Your task to perform on an android device: Search for pizza restaurants on Maps Image 0: 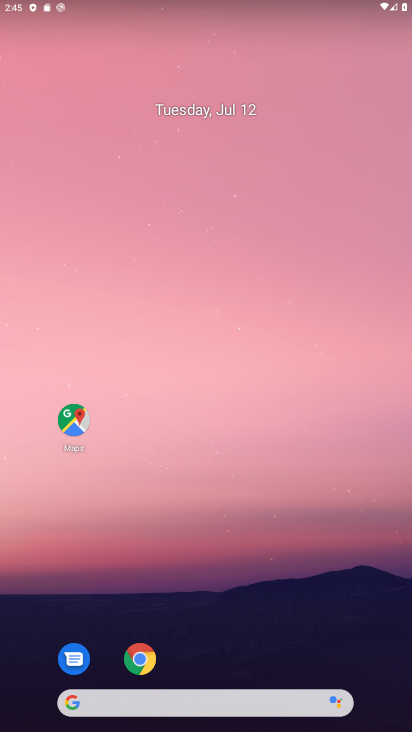
Step 0: drag from (258, 653) to (187, 233)
Your task to perform on an android device: Search for pizza restaurants on Maps Image 1: 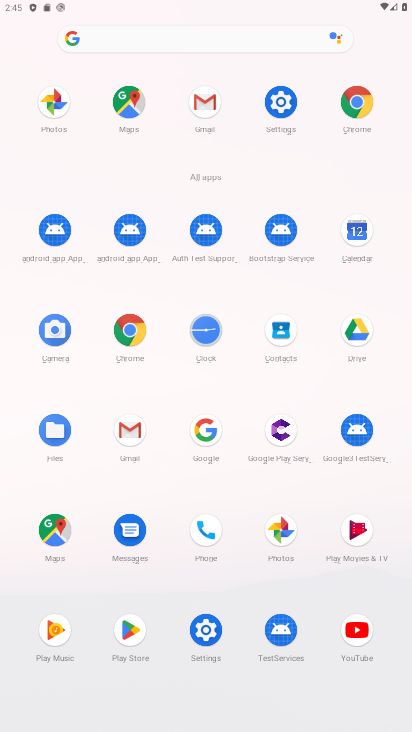
Step 1: click (59, 518)
Your task to perform on an android device: Search for pizza restaurants on Maps Image 2: 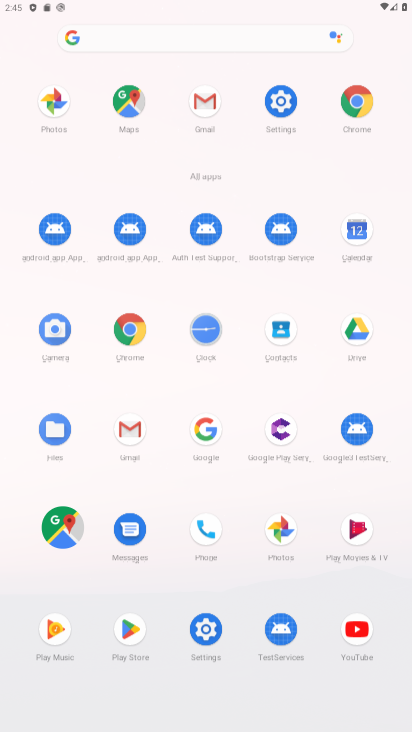
Step 2: click (61, 512)
Your task to perform on an android device: Search for pizza restaurants on Maps Image 3: 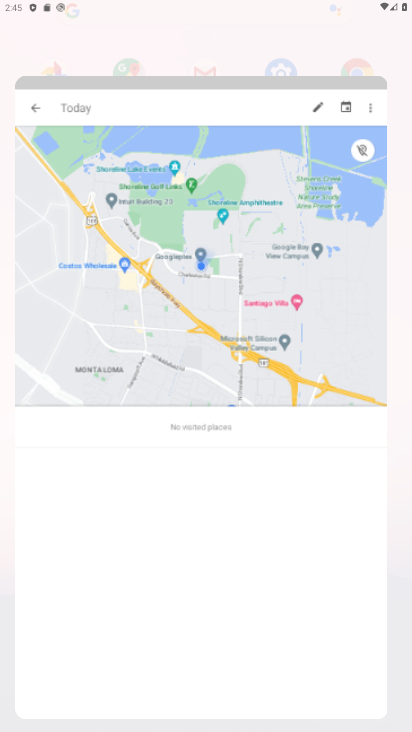
Step 3: click (61, 512)
Your task to perform on an android device: Search for pizza restaurants on Maps Image 4: 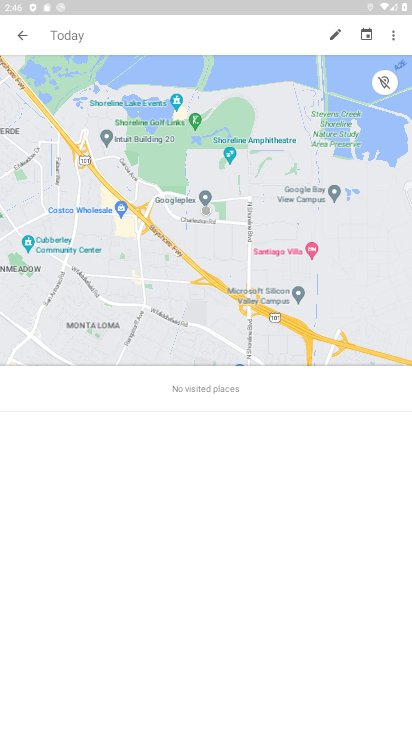
Step 4: click (399, 36)
Your task to perform on an android device: Search for pizza restaurants on Maps Image 5: 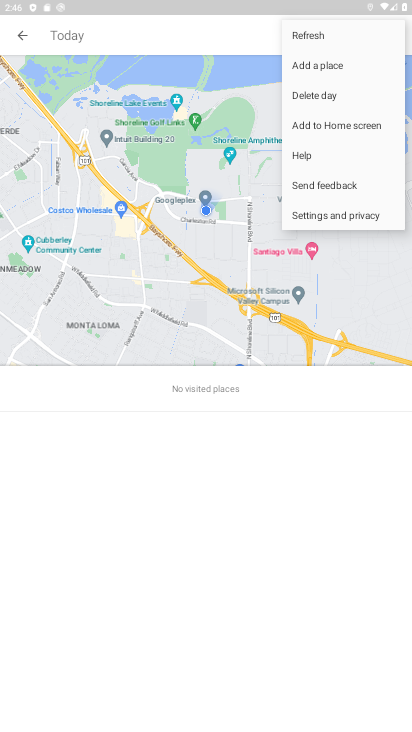
Step 5: click (97, 25)
Your task to perform on an android device: Search for pizza restaurants on Maps Image 6: 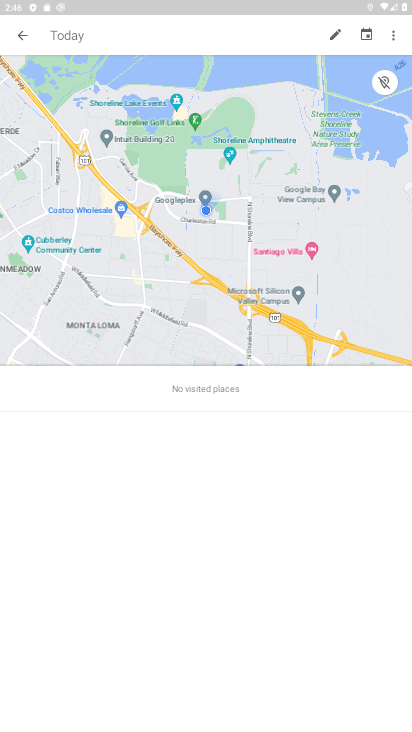
Step 6: click (97, 25)
Your task to perform on an android device: Search for pizza restaurants on Maps Image 7: 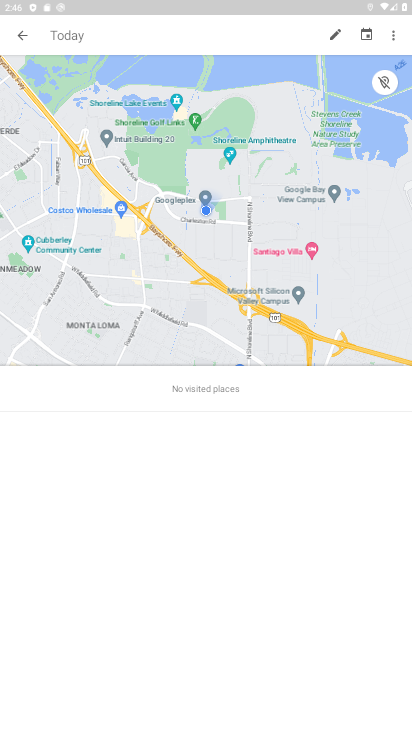
Step 7: click (89, 31)
Your task to perform on an android device: Search for pizza restaurants on Maps Image 8: 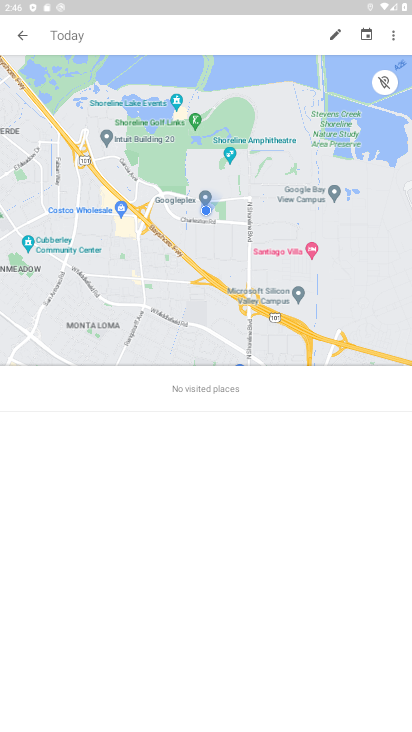
Step 8: click (93, 33)
Your task to perform on an android device: Search for pizza restaurants on Maps Image 9: 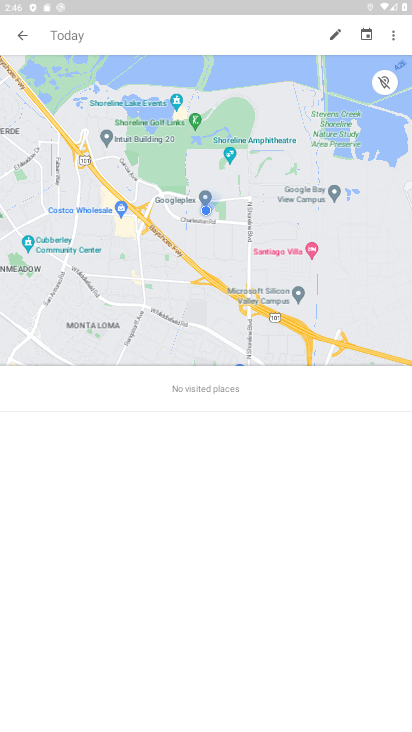
Step 9: click (343, 35)
Your task to perform on an android device: Search for pizza restaurants on Maps Image 10: 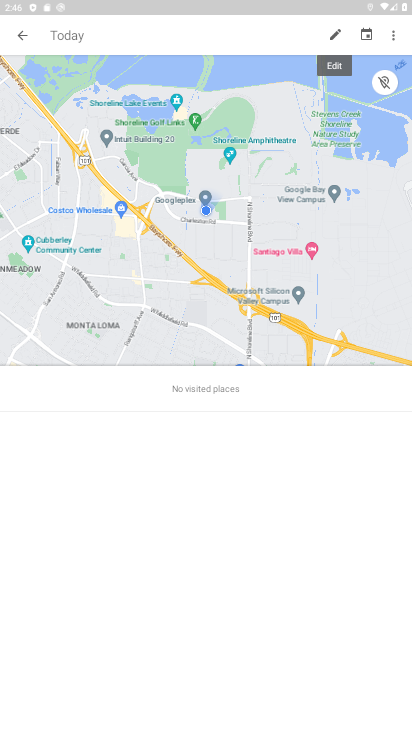
Step 10: click (91, 26)
Your task to perform on an android device: Search for pizza restaurants on Maps Image 11: 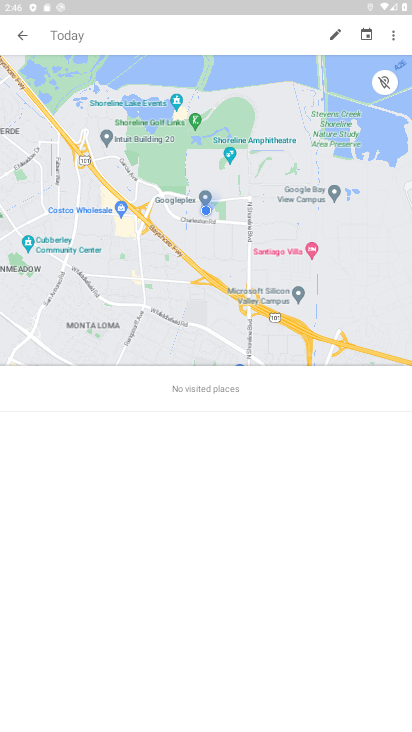
Step 11: click (95, 22)
Your task to perform on an android device: Search for pizza restaurants on Maps Image 12: 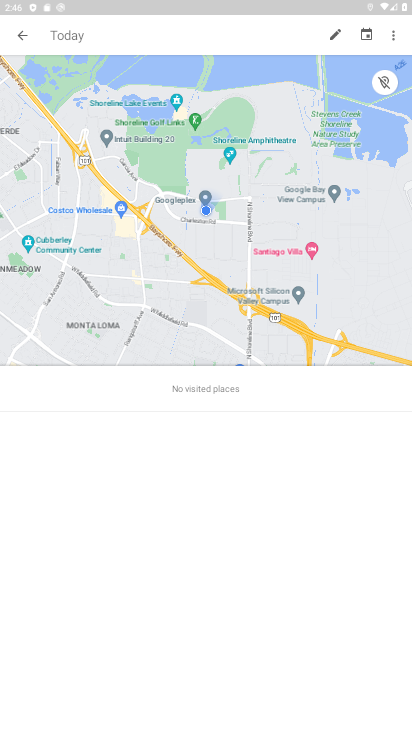
Step 12: click (96, 21)
Your task to perform on an android device: Search for pizza restaurants on Maps Image 13: 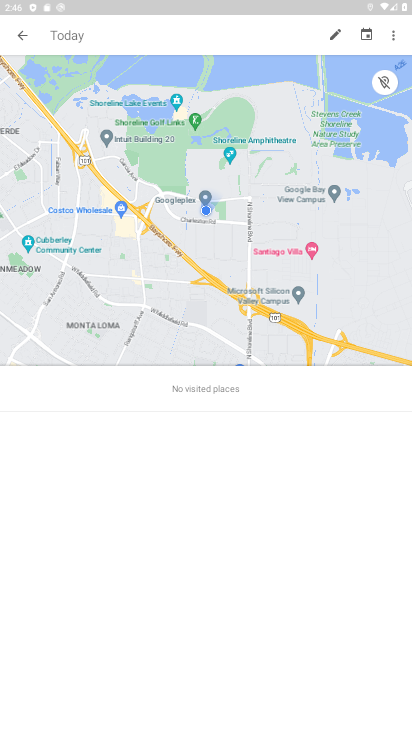
Step 13: click (96, 21)
Your task to perform on an android device: Search for pizza restaurants on Maps Image 14: 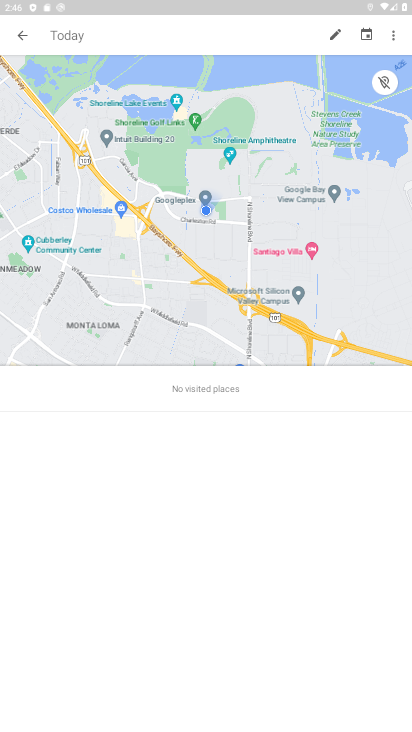
Step 14: click (97, 20)
Your task to perform on an android device: Search for pizza restaurants on Maps Image 15: 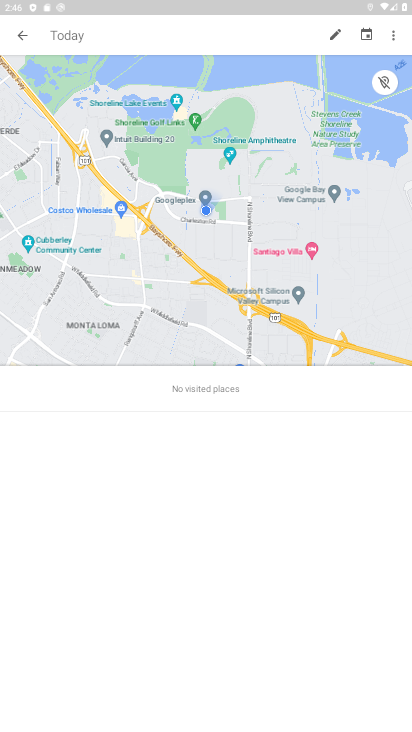
Step 15: click (97, 20)
Your task to perform on an android device: Search for pizza restaurants on Maps Image 16: 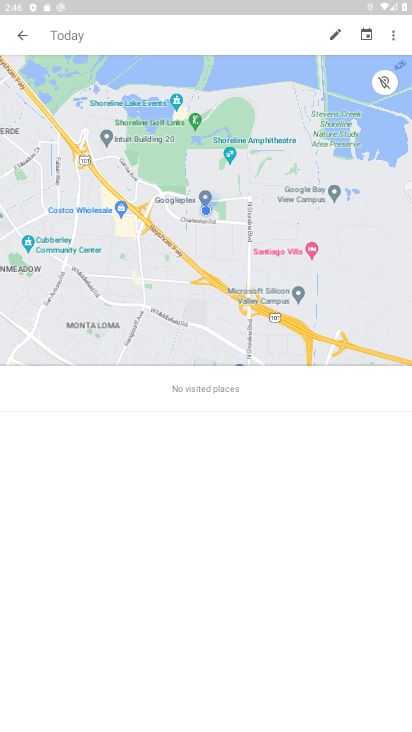
Step 16: click (97, 20)
Your task to perform on an android device: Search for pizza restaurants on Maps Image 17: 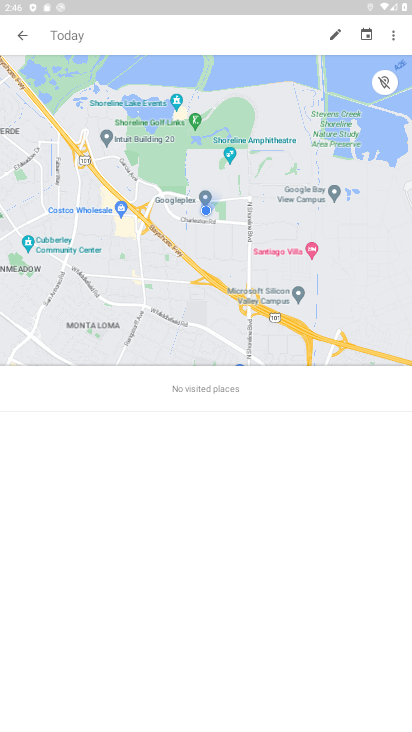
Step 17: click (98, 21)
Your task to perform on an android device: Search for pizza restaurants on Maps Image 18: 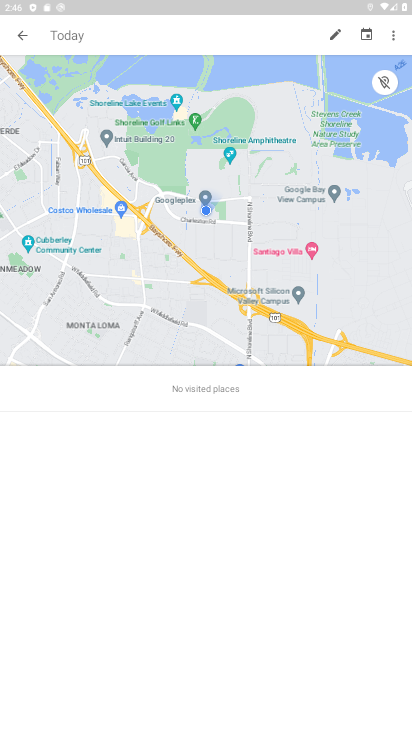
Step 18: click (87, 32)
Your task to perform on an android device: Search for pizza restaurants on Maps Image 19: 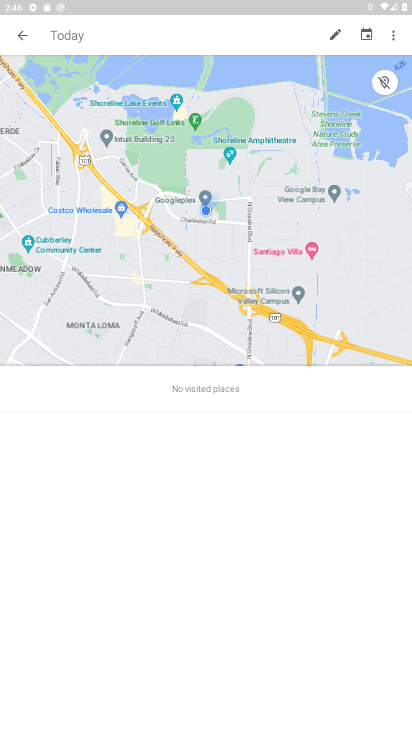
Step 19: click (84, 37)
Your task to perform on an android device: Search for pizza restaurants on Maps Image 20: 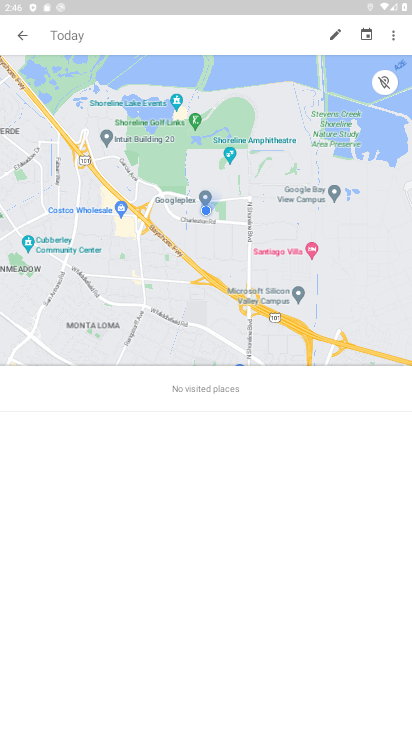
Step 20: click (89, 44)
Your task to perform on an android device: Search for pizza restaurants on Maps Image 21: 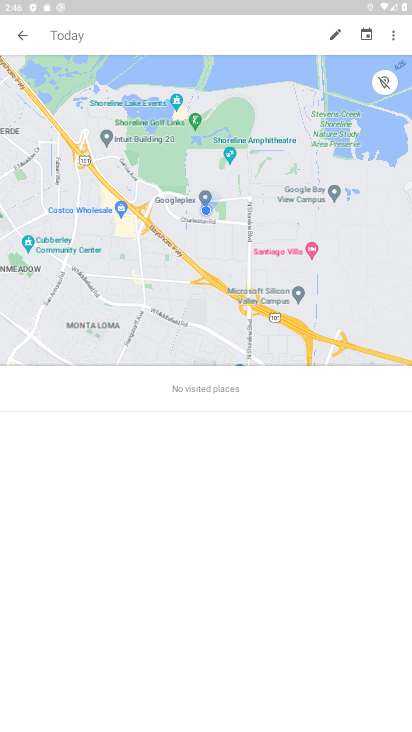
Step 21: click (88, 43)
Your task to perform on an android device: Search for pizza restaurants on Maps Image 22: 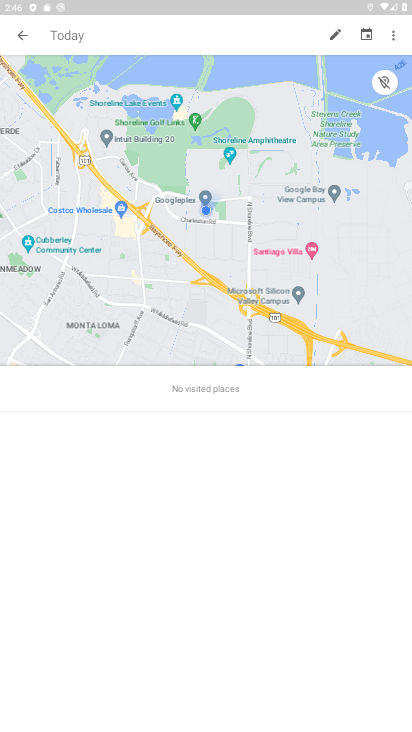
Step 22: click (333, 25)
Your task to perform on an android device: Search for pizza restaurants on Maps Image 23: 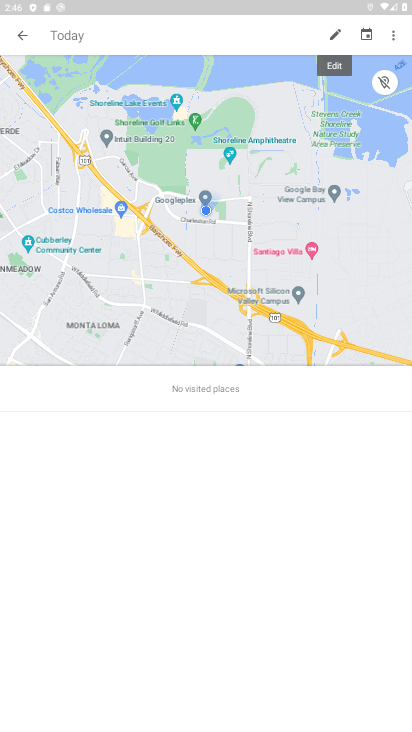
Step 23: click (20, 28)
Your task to perform on an android device: Search for pizza restaurants on Maps Image 24: 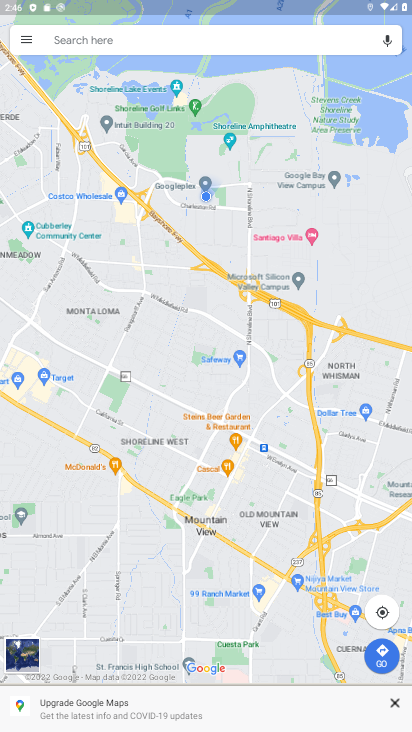
Step 24: click (66, 32)
Your task to perform on an android device: Search for pizza restaurants on Maps Image 25: 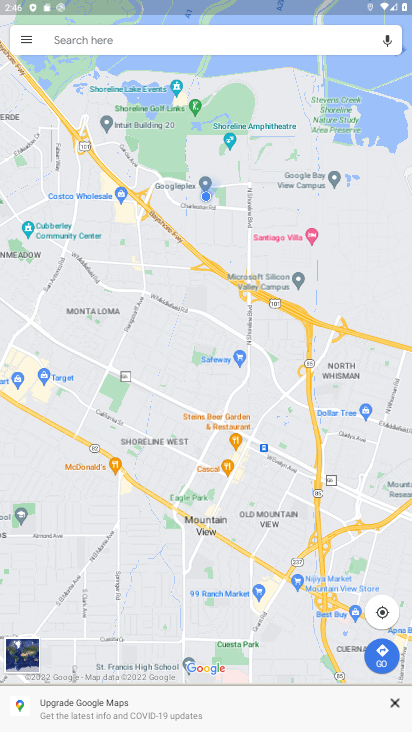
Step 25: click (66, 29)
Your task to perform on an android device: Search for pizza restaurants on Maps Image 26: 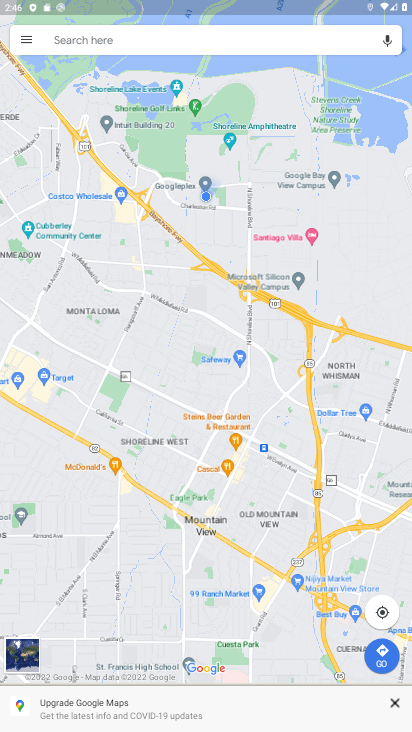
Step 26: click (66, 29)
Your task to perform on an android device: Search for pizza restaurants on Maps Image 27: 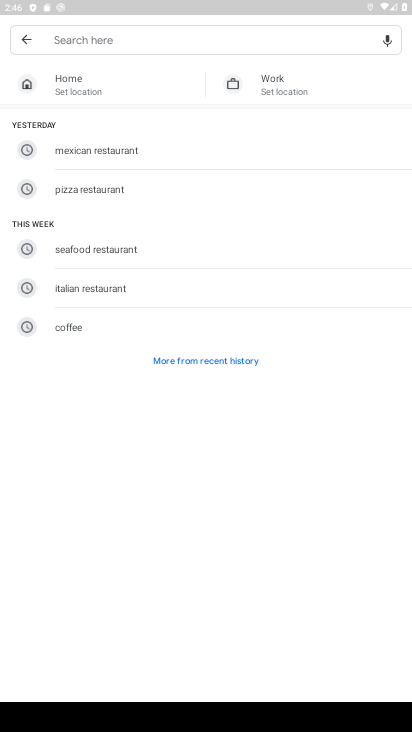
Step 27: click (139, 28)
Your task to perform on an android device: Search for pizza restaurants on Maps Image 28: 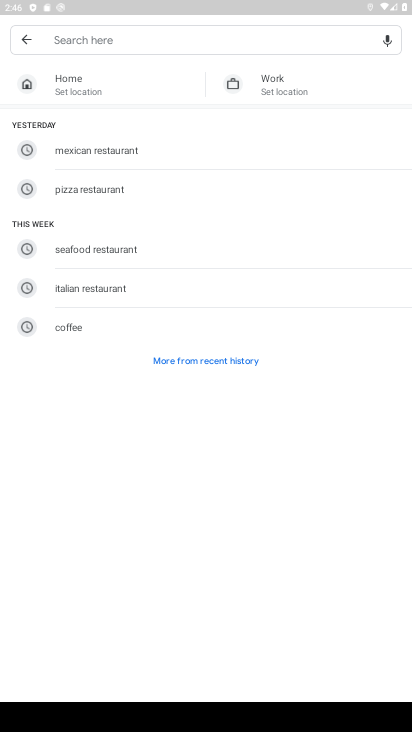
Step 28: type "pizza restsaurant"
Your task to perform on an android device: Search for pizza restaurants on Maps Image 29: 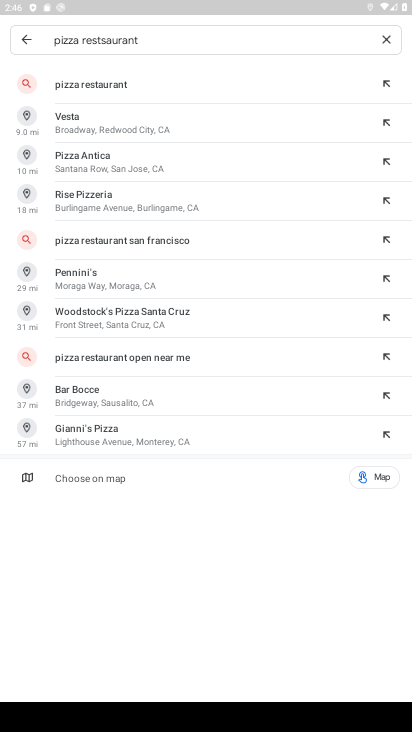
Step 29: click (81, 79)
Your task to perform on an android device: Search for pizza restaurants on Maps Image 30: 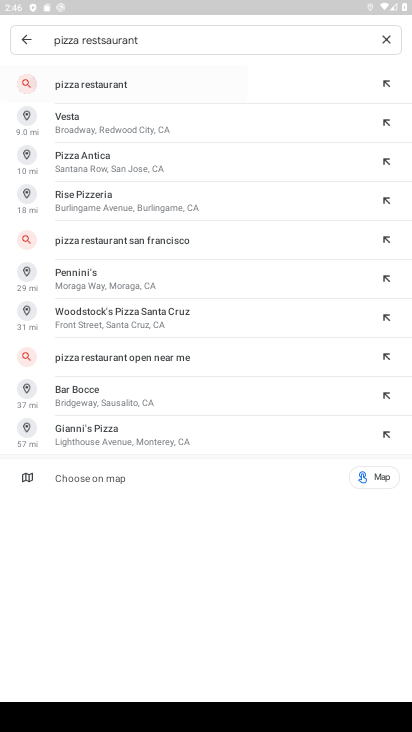
Step 30: click (81, 79)
Your task to perform on an android device: Search for pizza restaurants on Maps Image 31: 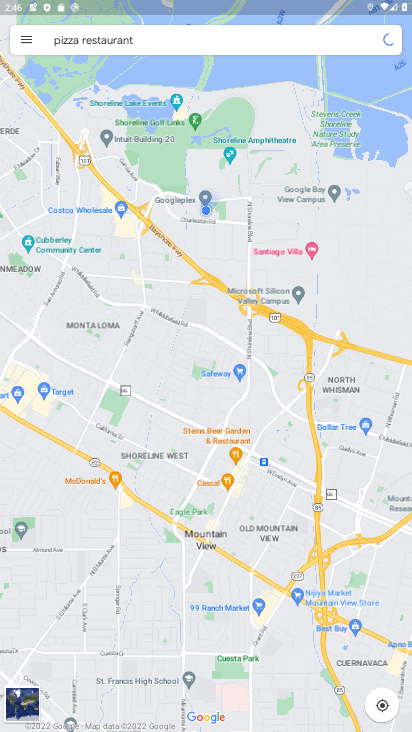
Step 31: task complete